Your task to perform on an android device: choose inbox layout in the gmail app Image 0: 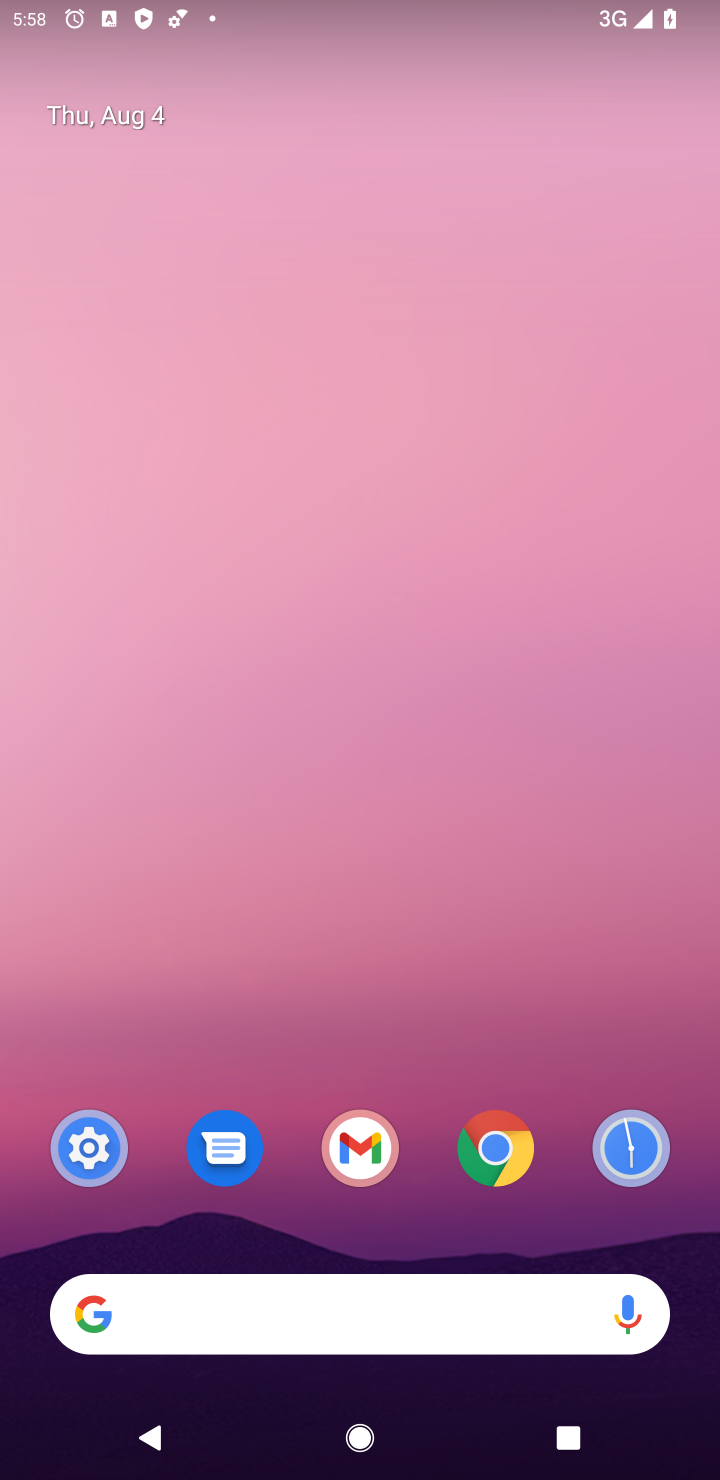
Step 0: click (352, 1145)
Your task to perform on an android device: choose inbox layout in the gmail app Image 1: 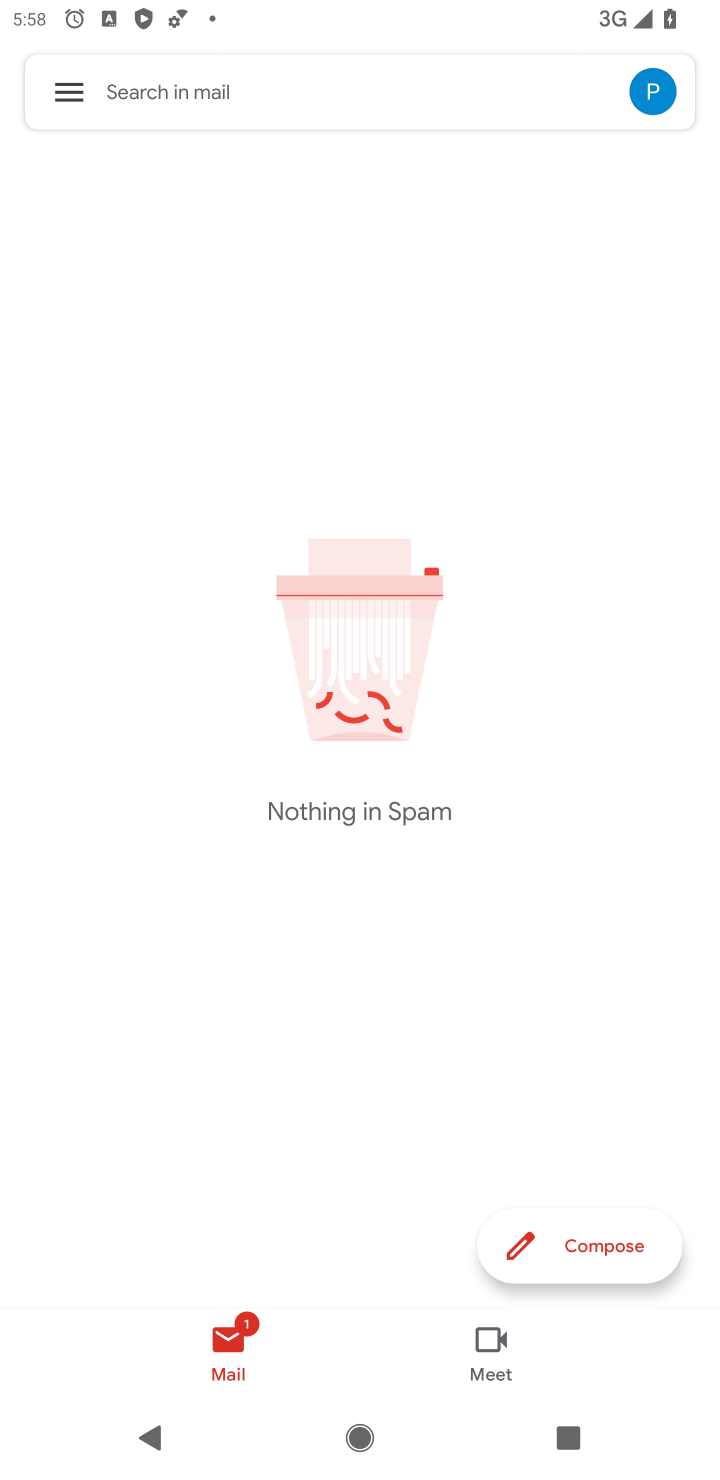
Step 1: click (64, 99)
Your task to perform on an android device: choose inbox layout in the gmail app Image 2: 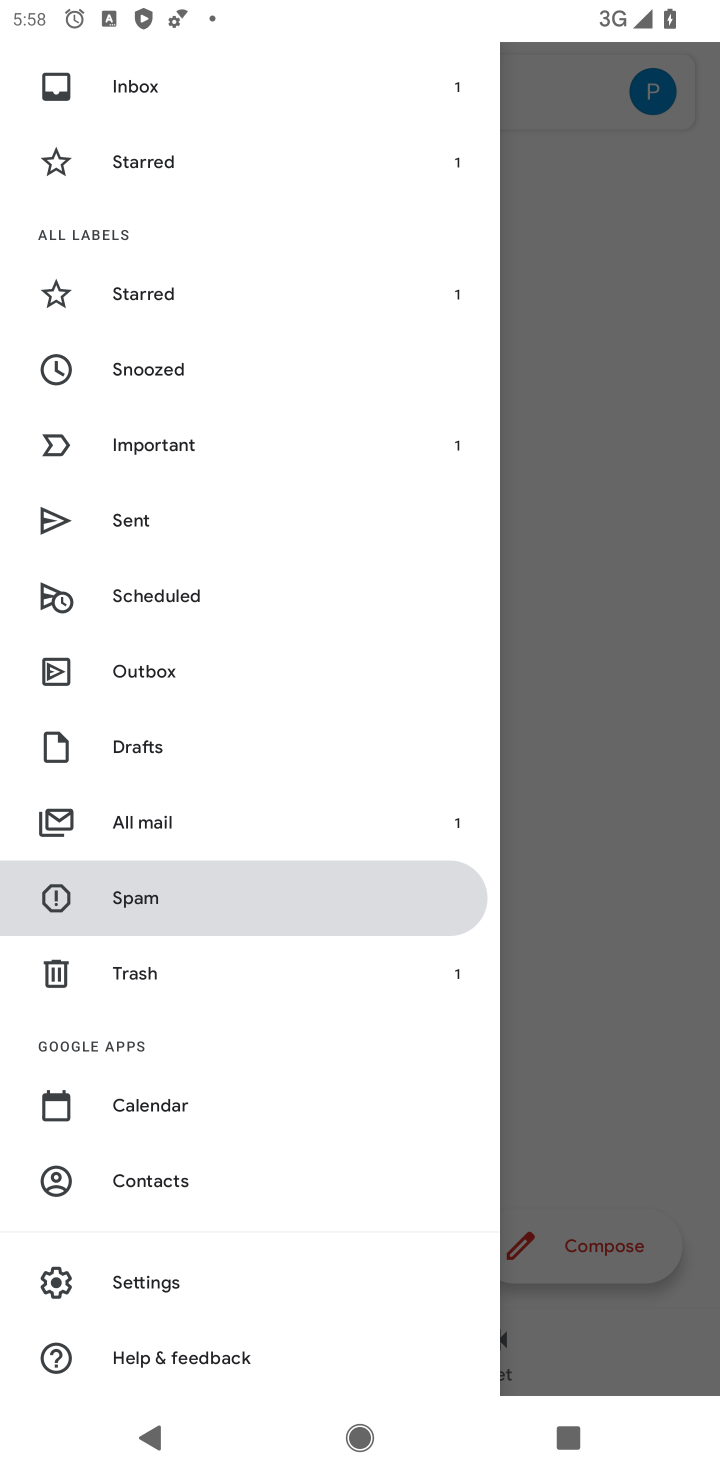
Step 2: click (155, 1288)
Your task to perform on an android device: choose inbox layout in the gmail app Image 3: 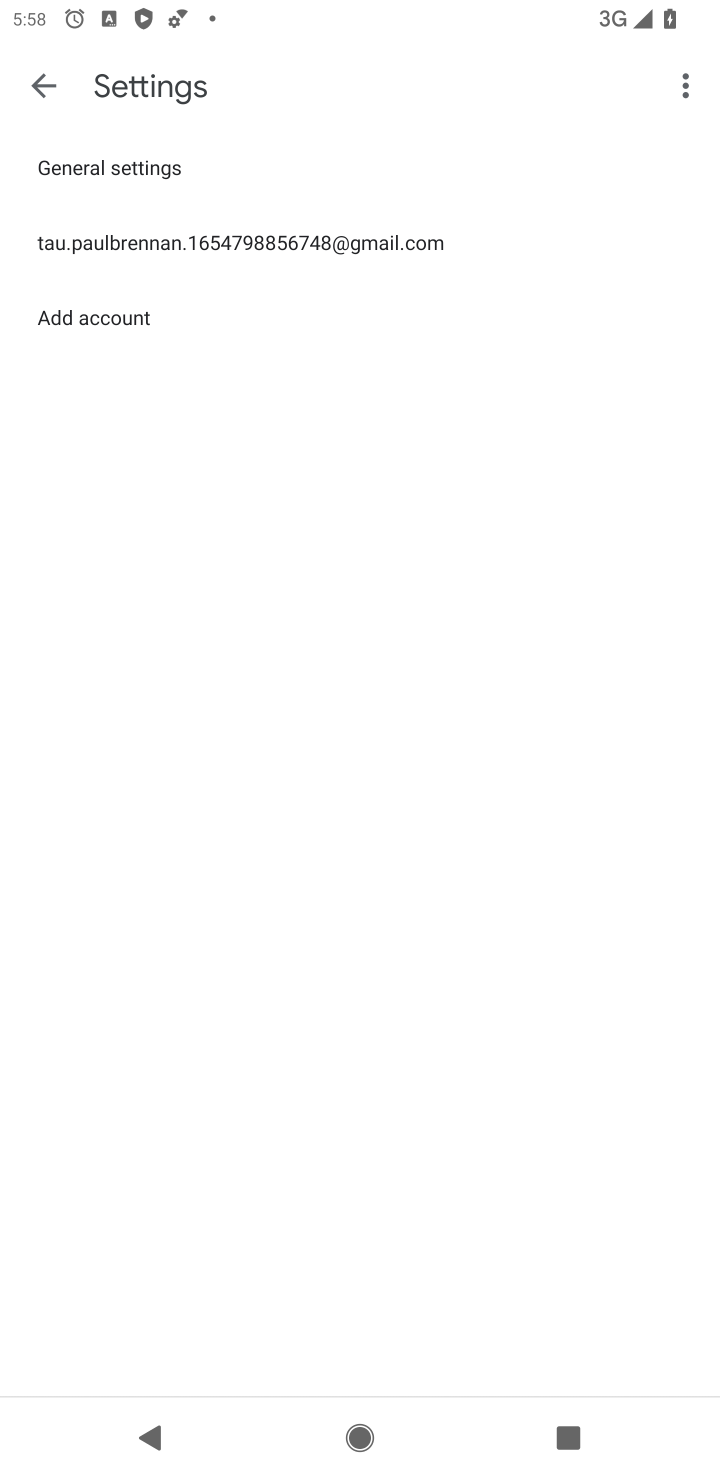
Step 3: click (205, 249)
Your task to perform on an android device: choose inbox layout in the gmail app Image 4: 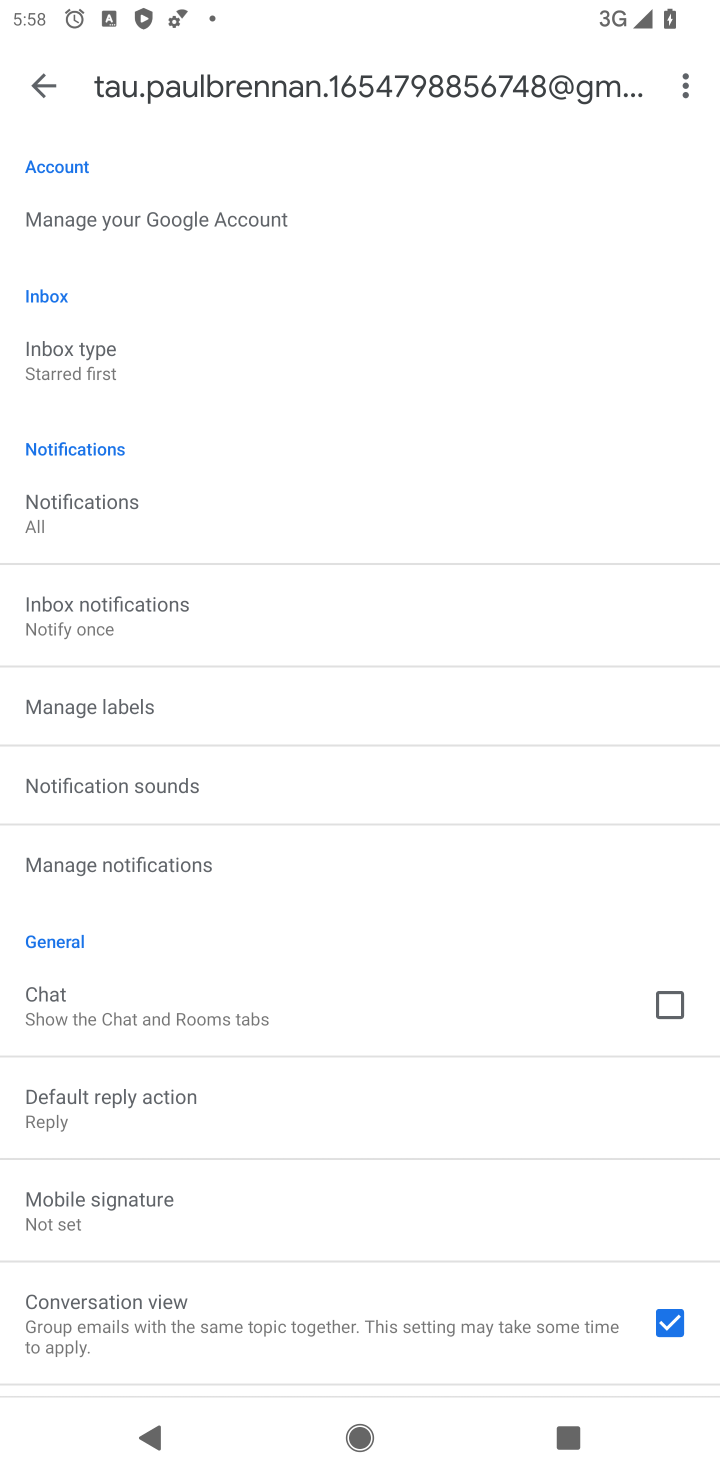
Step 4: click (80, 353)
Your task to perform on an android device: choose inbox layout in the gmail app Image 5: 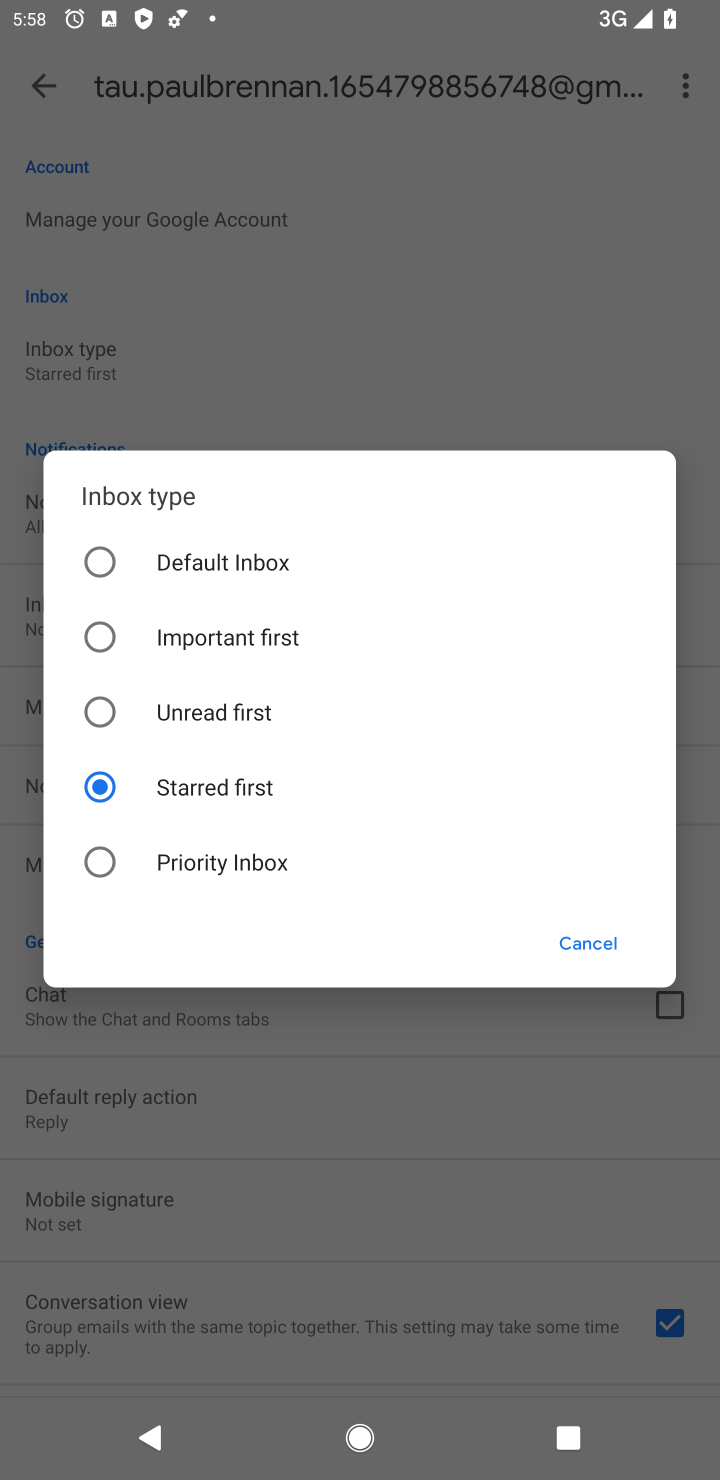
Step 5: click (97, 552)
Your task to perform on an android device: choose inbox layout in the gmail app Image 6: 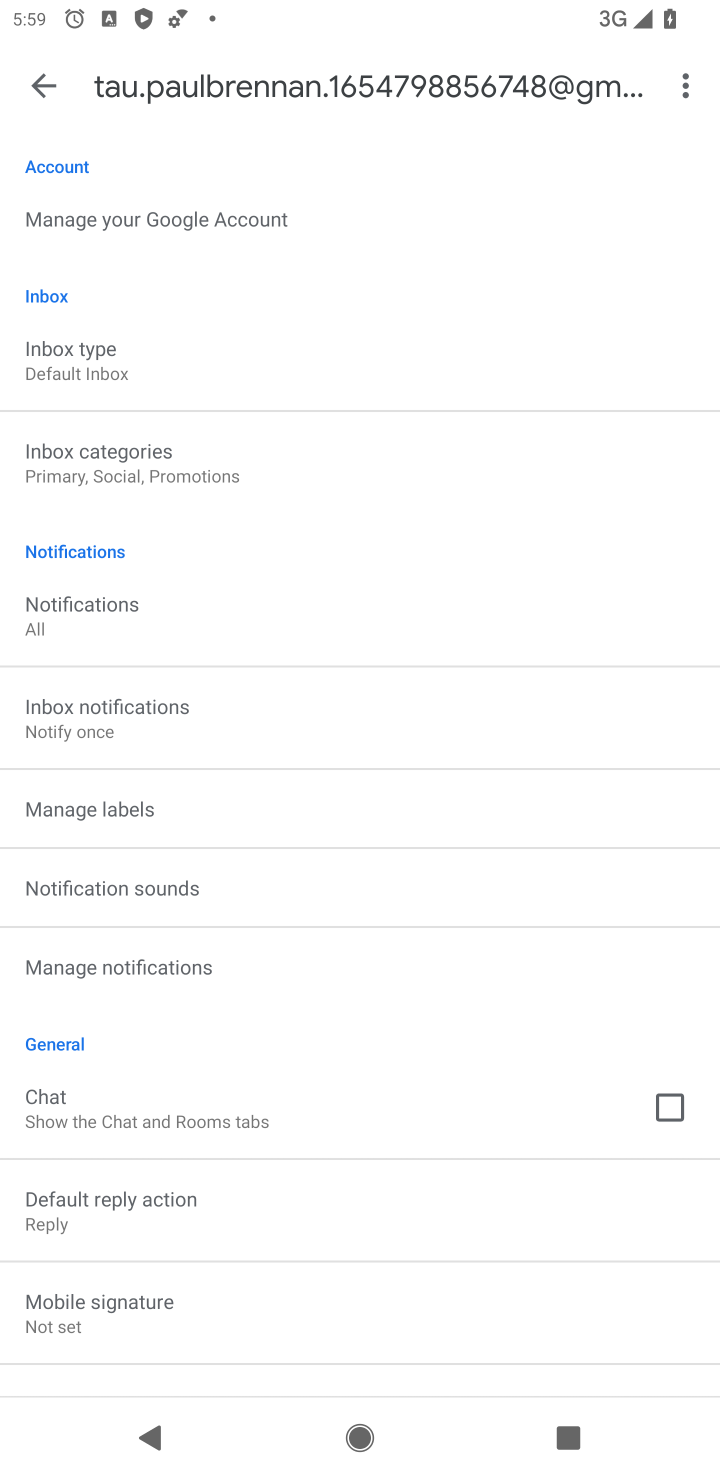
Step 6: task complete